Your task to perform on an android device: delete location history Image 0: 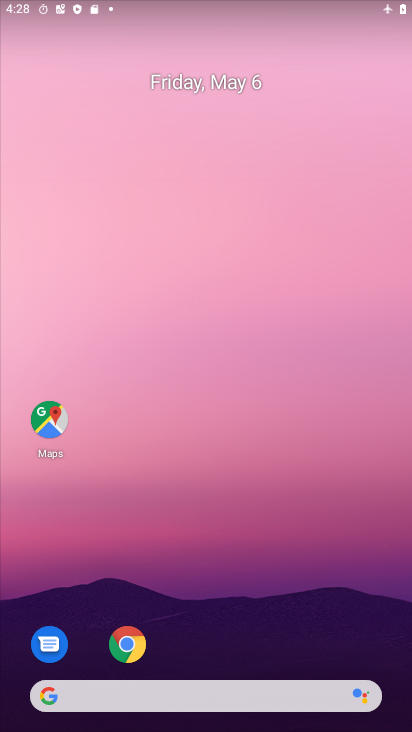
Step 0: drag from (307, 623) to (240, 15)
Your task to perform on an android device: delete location history Image 1: 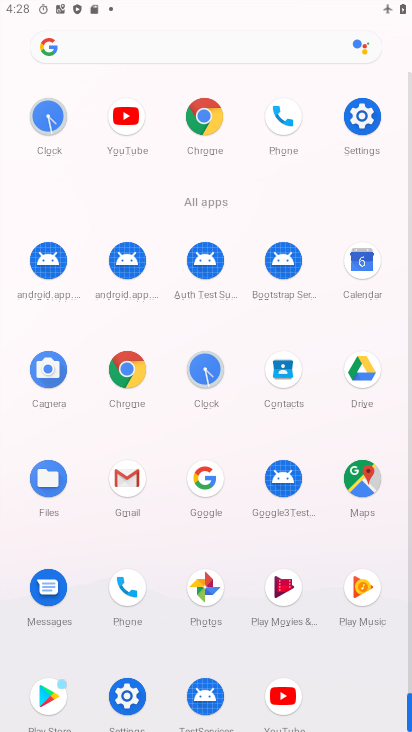
Step 1: click (357, 488)
Your task to perform on an android device: delete location history Image 2: 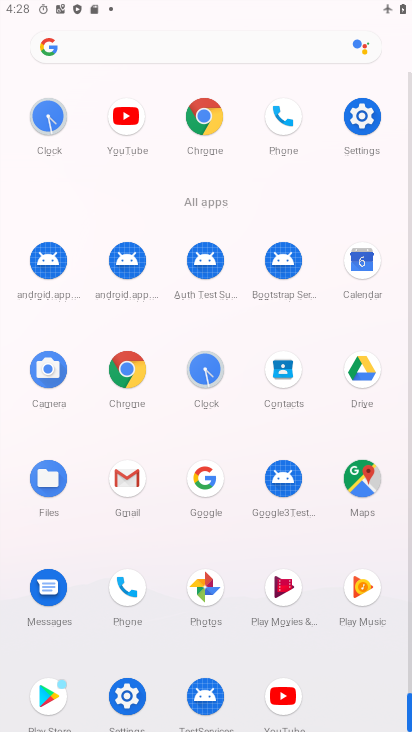
Step 2: click (357, 487)
Your task to perform on an android device: delete location history Image 3: 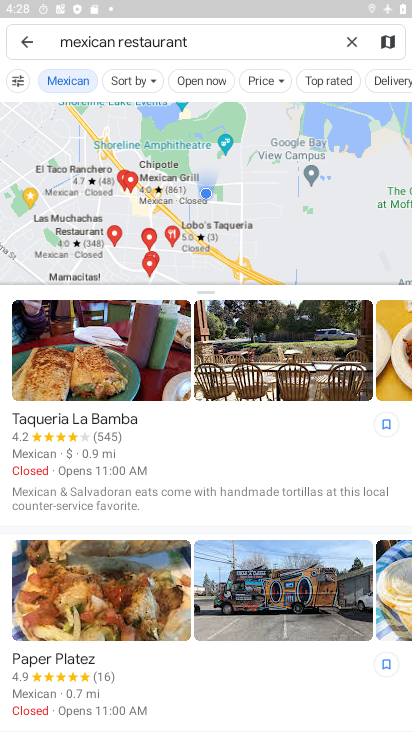
Step 3: click (25, 38)
Your task to perform on an android device: delete location history Image 4: 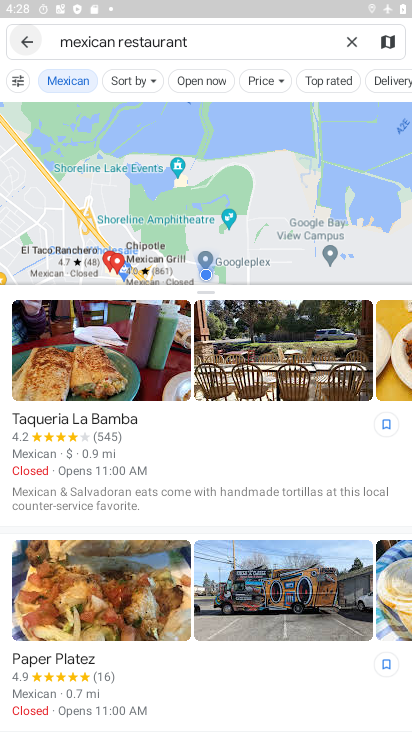
Step 4: click (27, 36)
Your task to perform on an android device: delete location history Image 5: 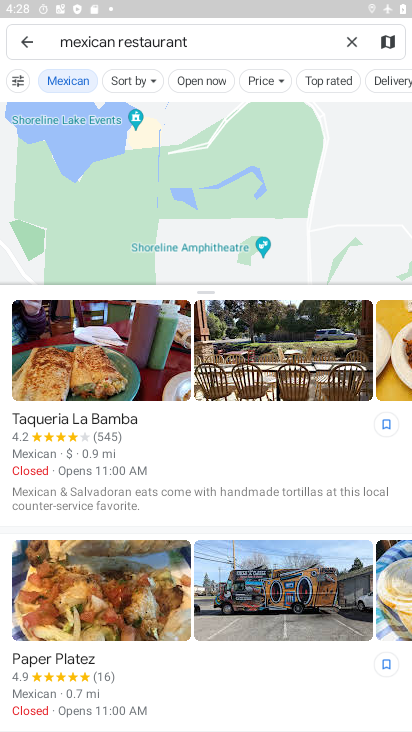
Step 5: click (27, 36)
Your task to perform on an android device: delete location history Image 6: 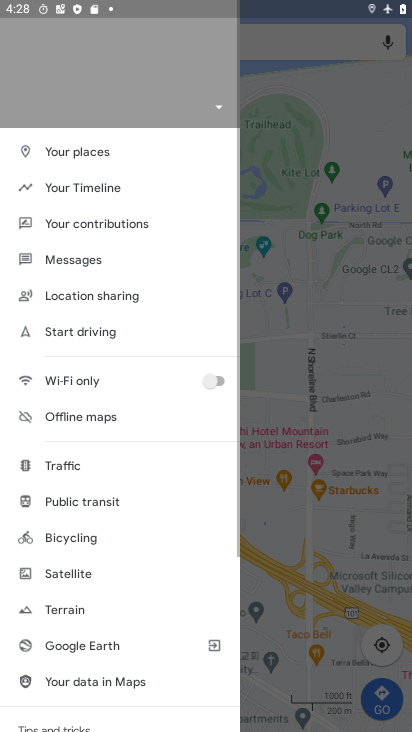
Step 6: click (27, 36)
Your task to perform on an android device: delete location history Image 7: 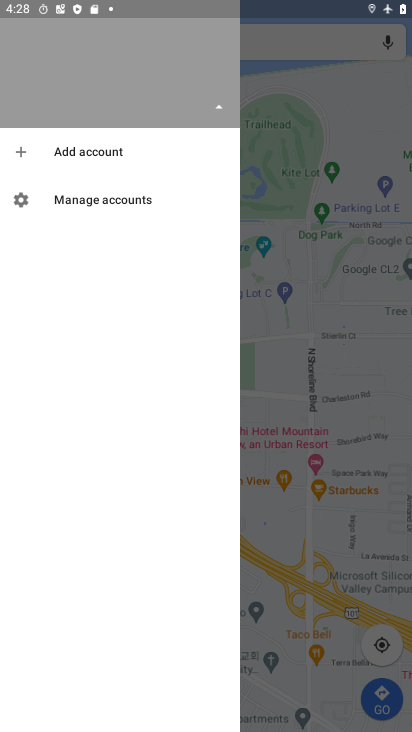
Step 7: click (222, 105)
Your task to perform on an android device: delete location history Image 8: 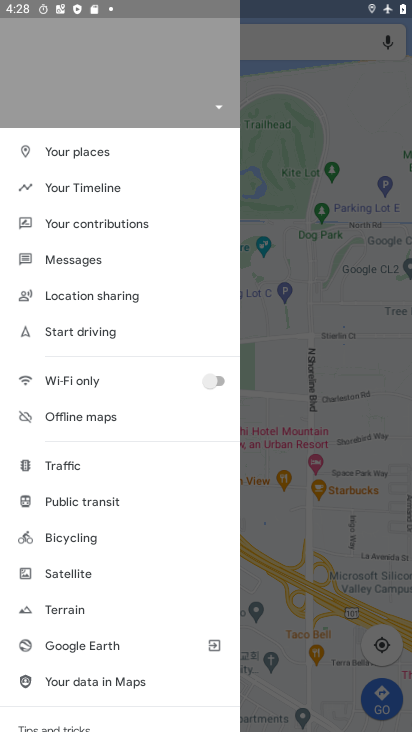
Step 8: click (110, 181)
Your task to perform on an android device: delete location history Image 9: 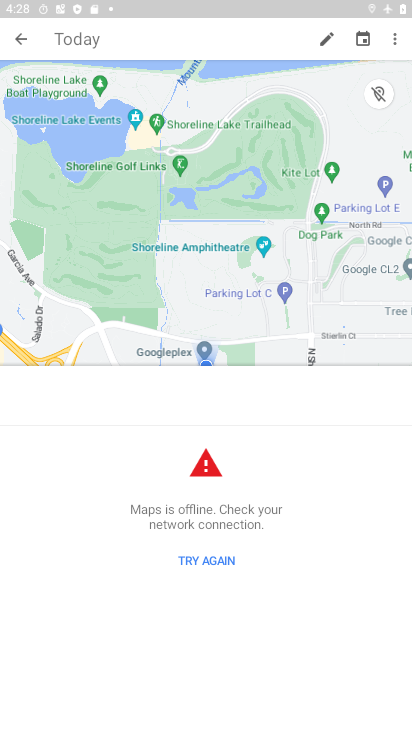
Step 9: task complete